Your task to perform on an android device: Open notification settings Image 0: 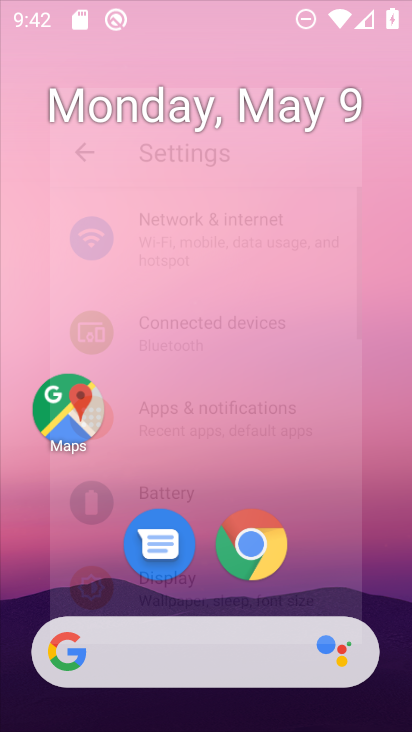
Step 0: drag from (306, 596) to (170, 161)
Your task to perform on an android device: Open notification settings Image 1: 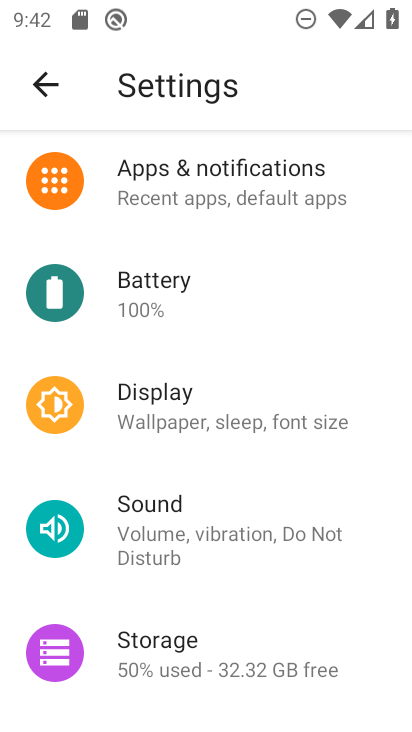
Step 1: click (225, 166)
Your task to perform on an android device: Open notification settings Image 2: 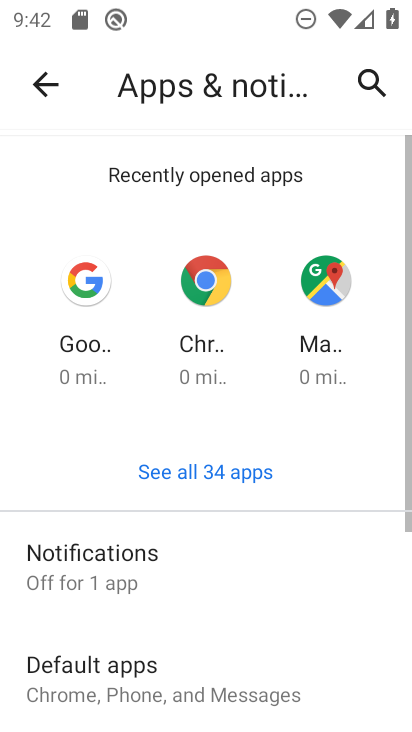
Step 2: task complete